Your task to perform on an android device: Toggle notifications for the Google Maps app Image 0: 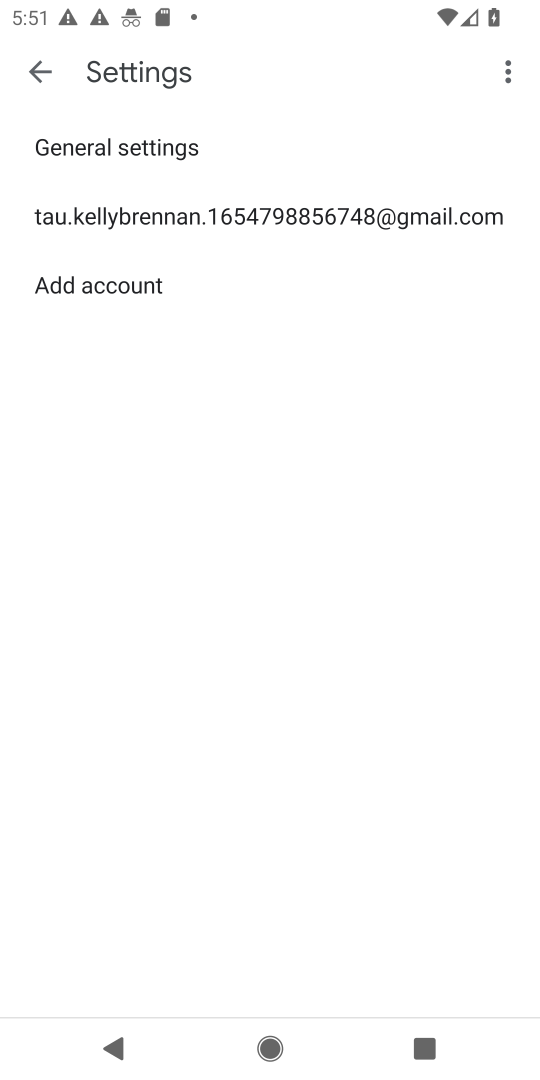
Step 0: press home button
Your task to perform on an android device: Toggle notifications for the Google Maps app Image 1: 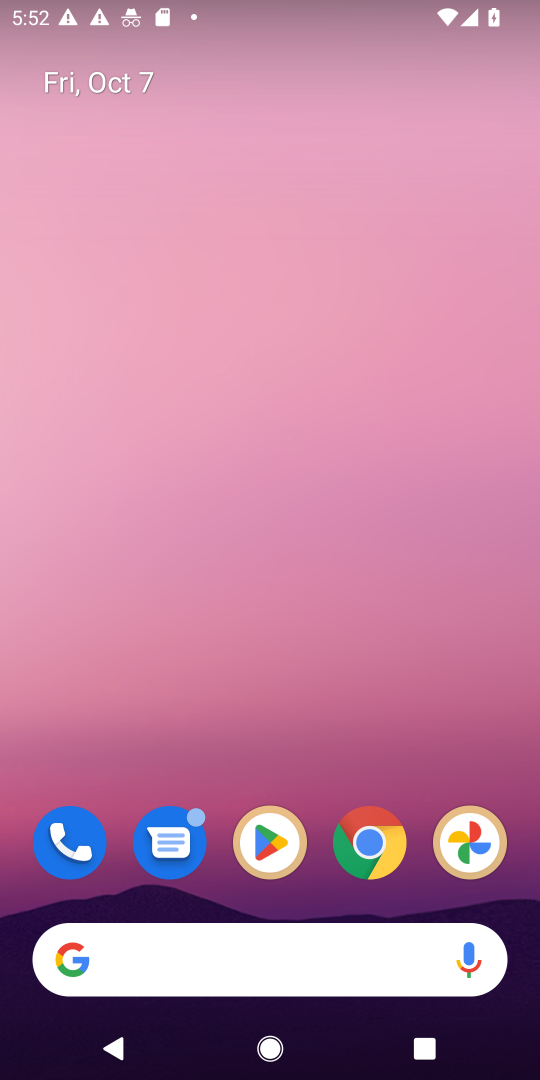
Step 1: drag from (310, 898) to (403, 62)
Your task to perform on an android device: Toggle notifications for the Google Maps app Image 2: 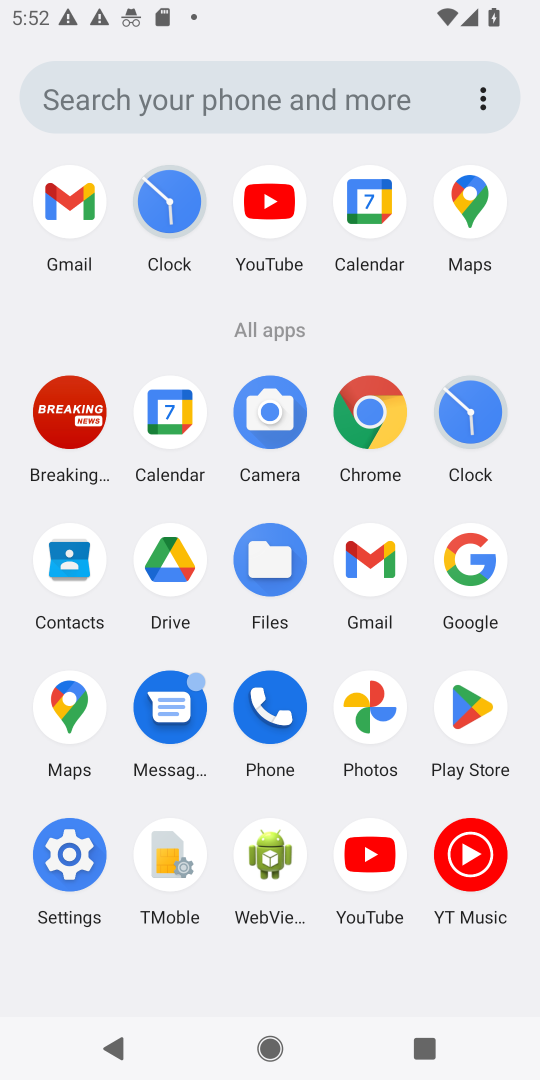
Step 2: click (76, 737)
Your task to perform on an android device: Toggle notifications for the Google Maps app Image 3: 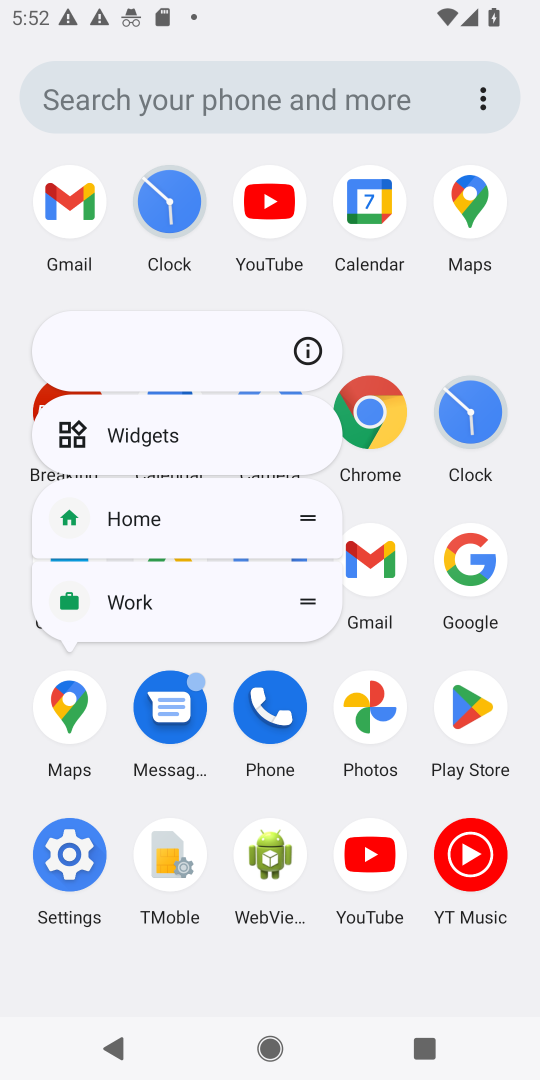
Step 3: click (314, 349)
Your task to perform on an android device: Toggle notifications for the Google Maps app Image 4: 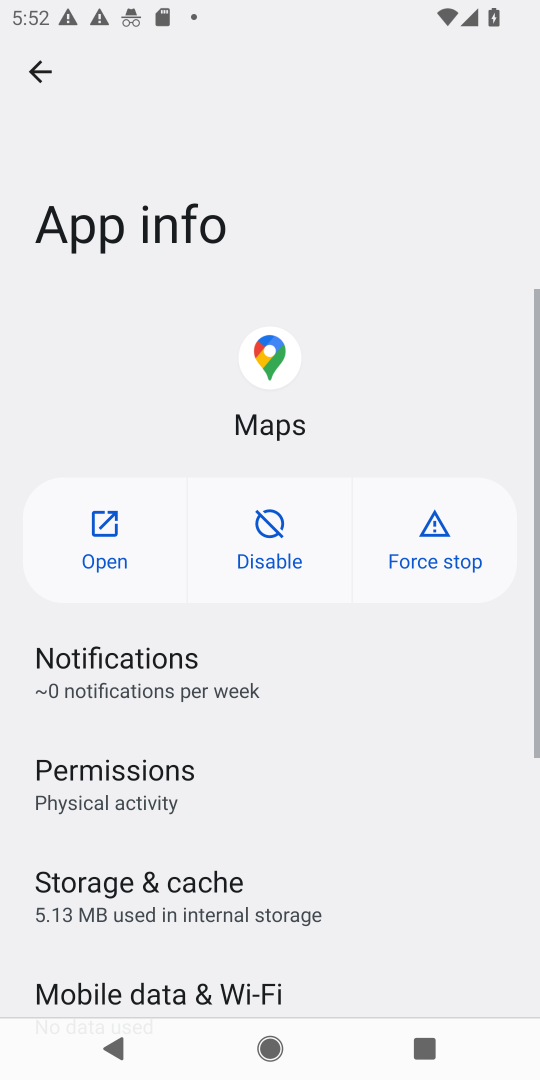
Step 4: click (186, 664)
Your task to perform on an android device: Toggle notifications for the Google Maps app Image 5: 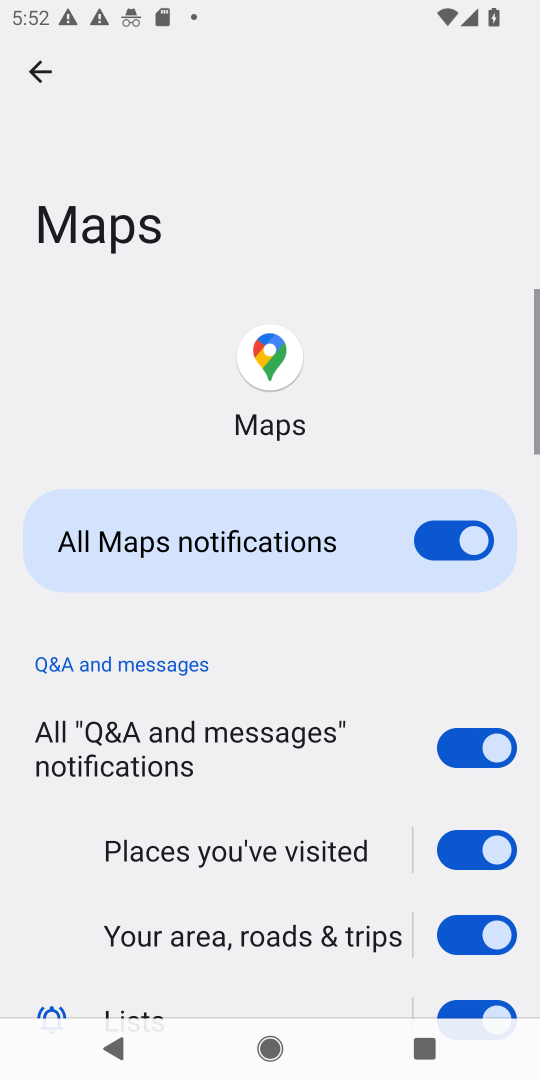
Step 5: click (425, 537)
Your task to perform on an android device: Toggle notifications for the Google Maps app Image 6: 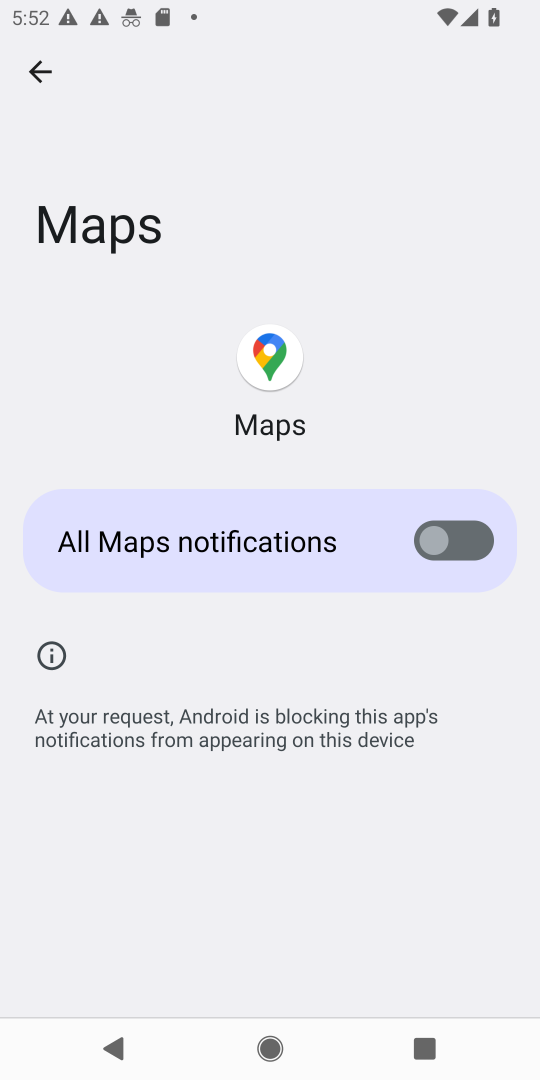
Step 6: task complete